Your task to perform on an android device: open app "NewsBreak: Local News & Alerts" Image 0: 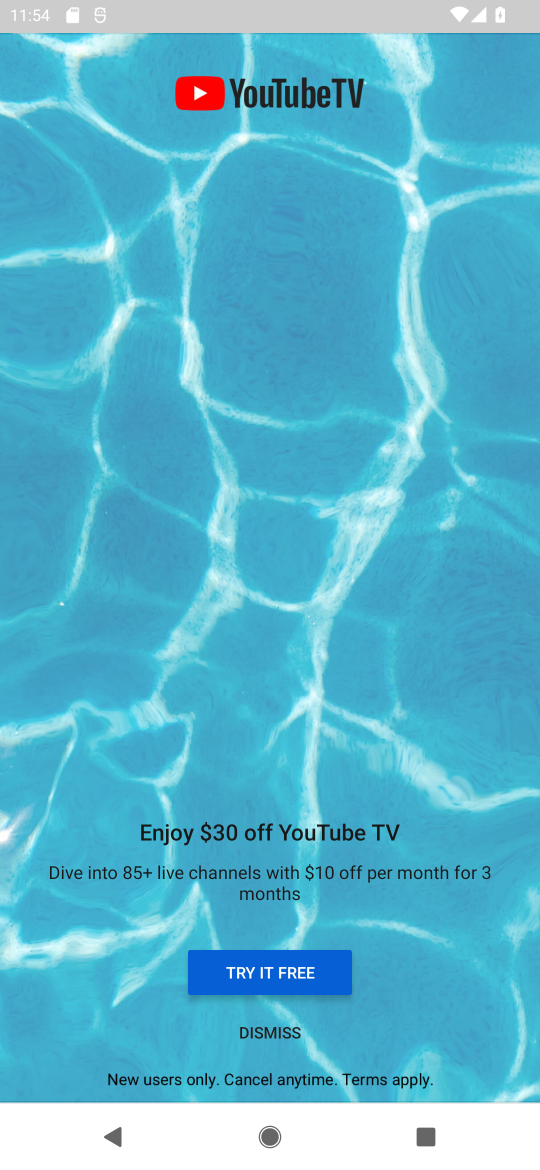
Step 0: press home button
Your task to perform on an android device: open app "NewsBreak: Local News & Alerts" Image 1: 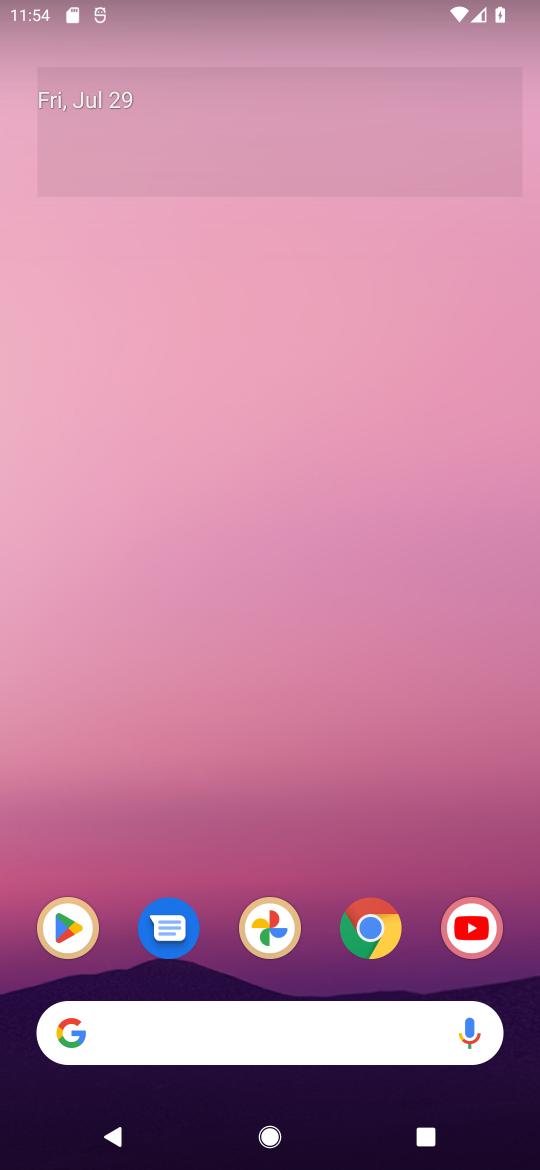
Step 1: drag from (427, 977) to (446, 141)
Your task to perform on an android device: open app "NewsBreak: Local News & Alerts" Image 2: 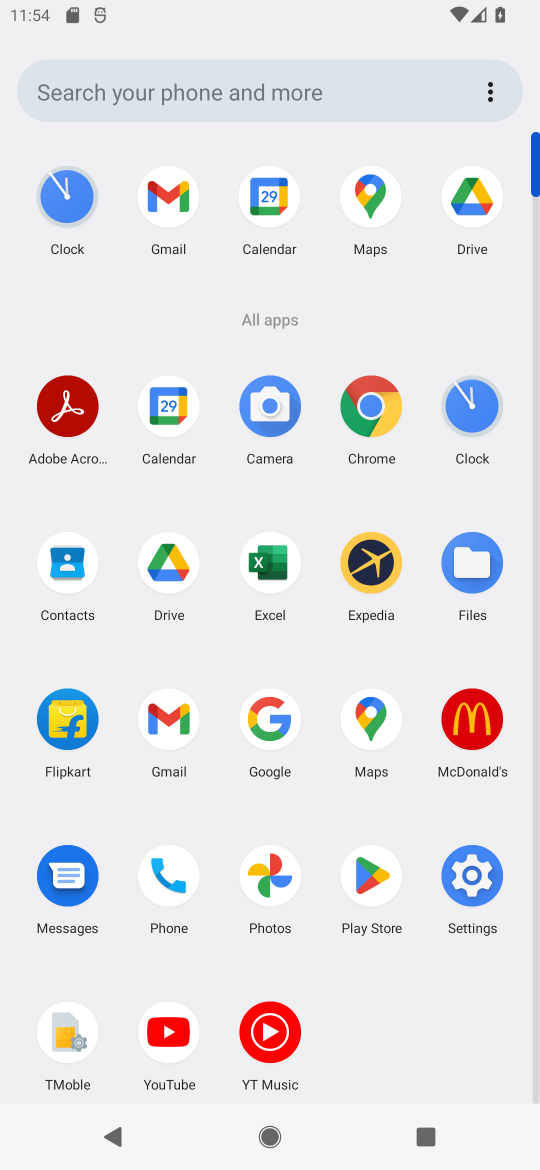
Step 2: click (380, 868)
Your task to perform on an android device: open app "NewsBreak: Local News & Alerts" Image 3: 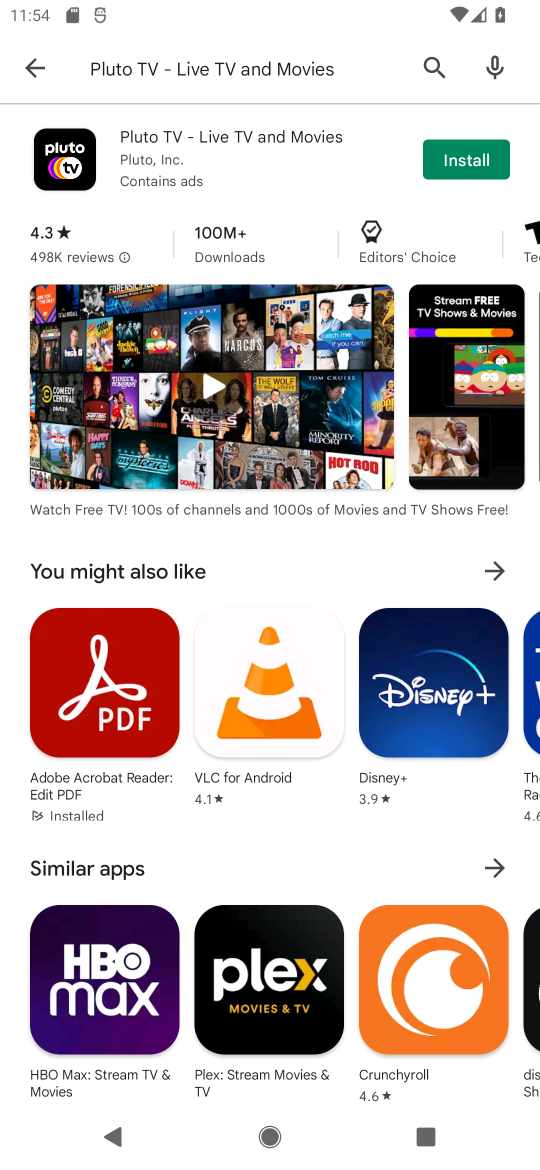
Step 3: click (279, 72)
Your task to perform on an android device: open app "NewsBreak: Local News & Alerts" Image 4: 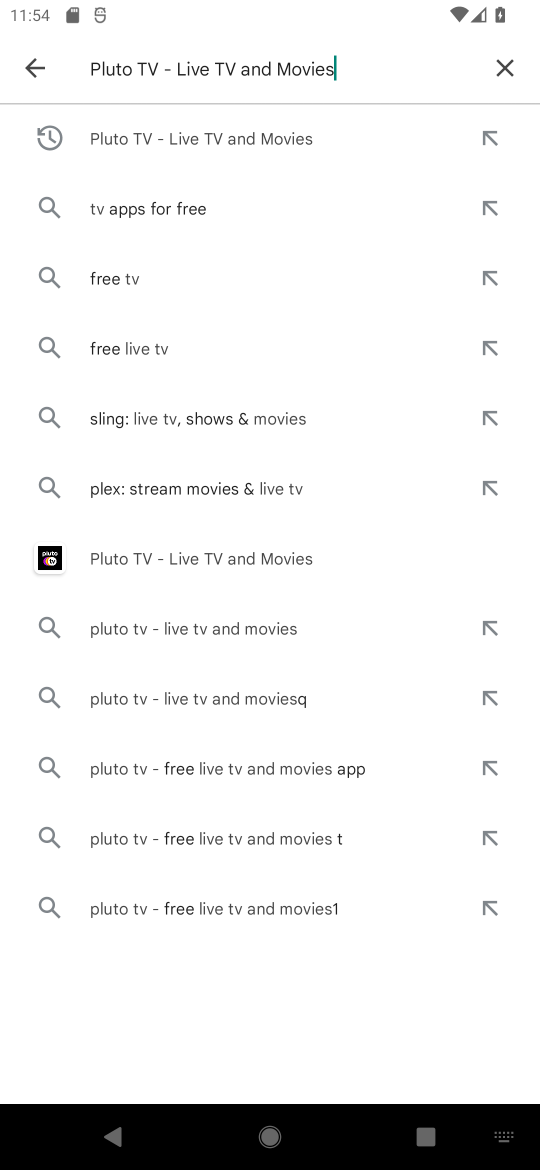
Step 4: click (507, 63)
Your task to perform on an android device: open app "NewsBreak: Local News & Alerts" Image 5: 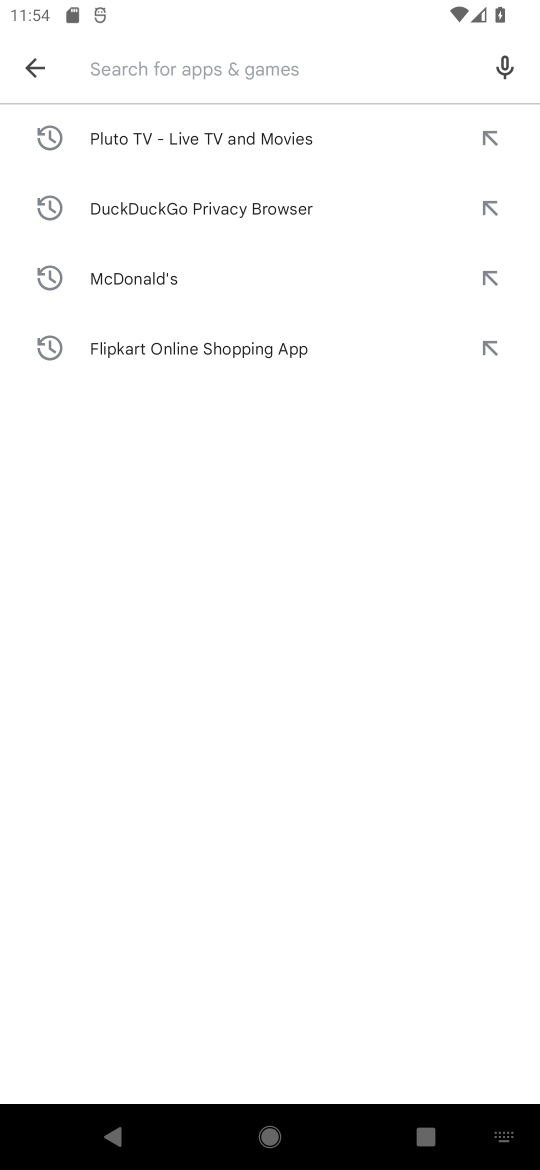
Step 5: type "NewsBreak: News & Alerts"
Your task to perform on an android device: open app "NewsBreak: Local News & Alerts" Image 6: 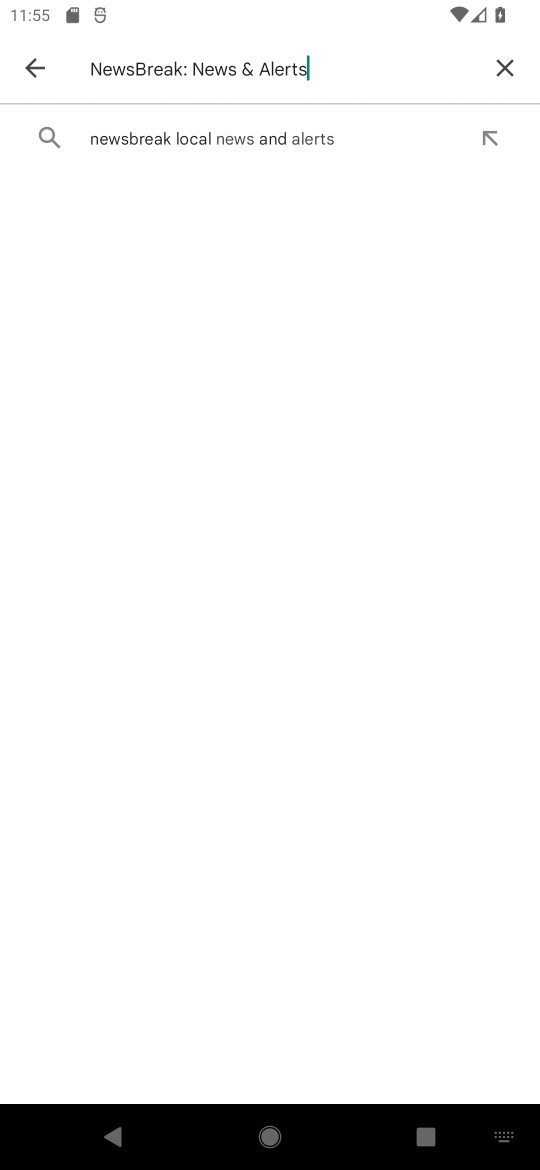
Step 6: press enter
Your task to perform on an android device: open app "NewsBreak: Local News & Alerts" Image 7: 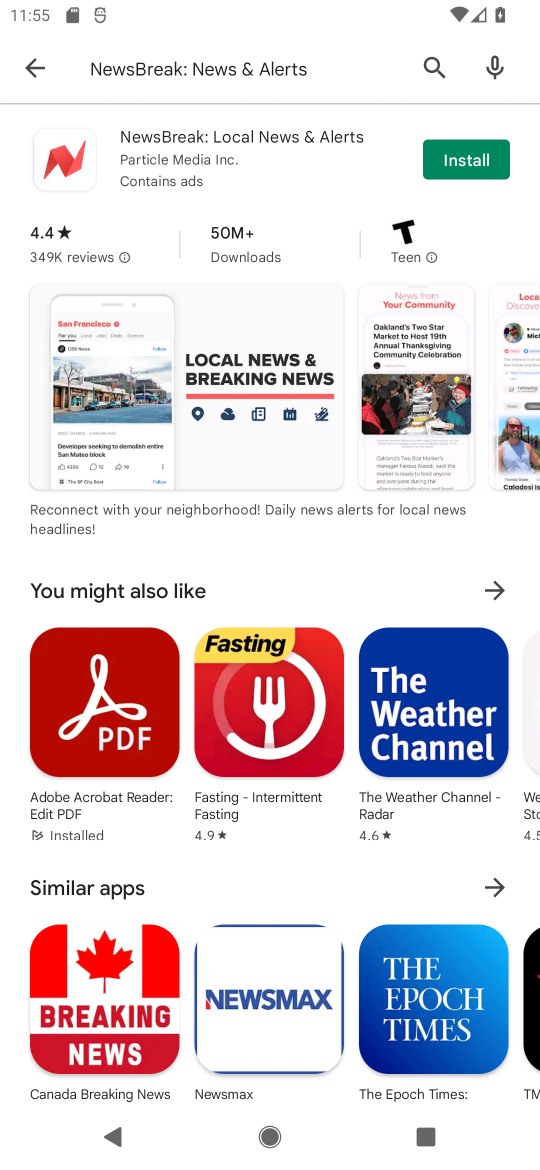
Step 7: task complete